Your task to perform on an android device: Go to calendar. Show me events next week Image 0: 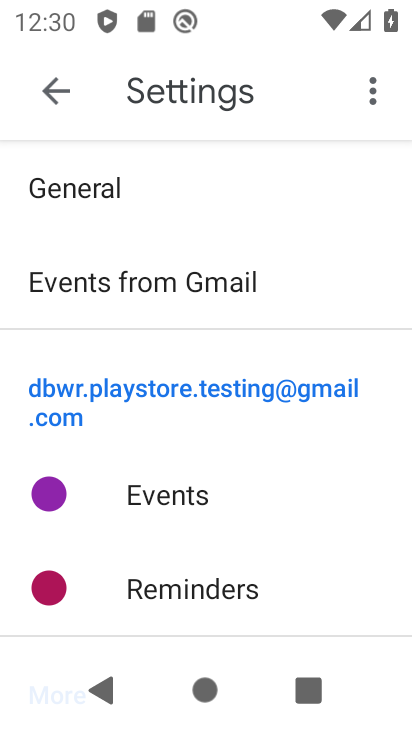
Step 0: press home button
Your task to perform on an android device: Go to calendar. Show me events next week Image 1: 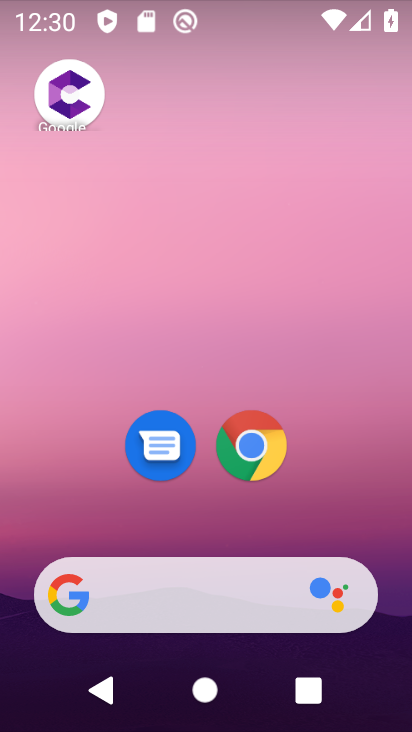
Step 1: drag from (372, 511) to (373, 102)
Your task to perform on an android device: Go to calendar. Show me events next week Image 2: 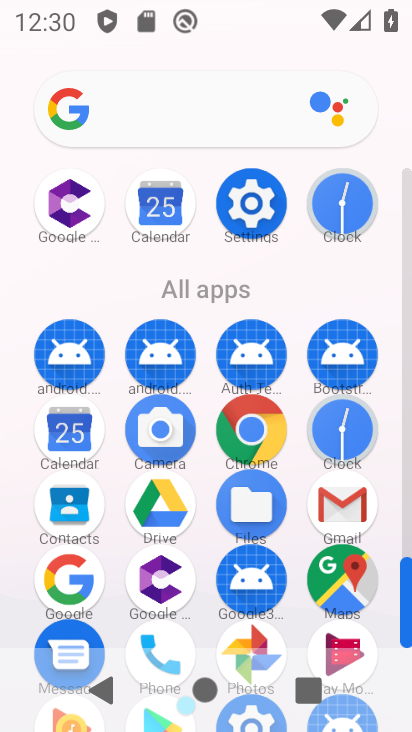
Step 2: click (270, 208)
Your task to perform on an android device: Go to calendar. Show me events next week Image 3: 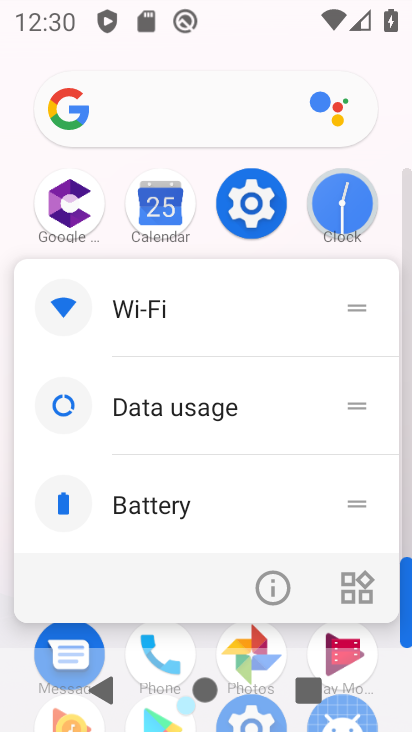
Step 3: click (231, 202)
Your task to perform on an android device: Go to calendar. Show me events next week Image 4: 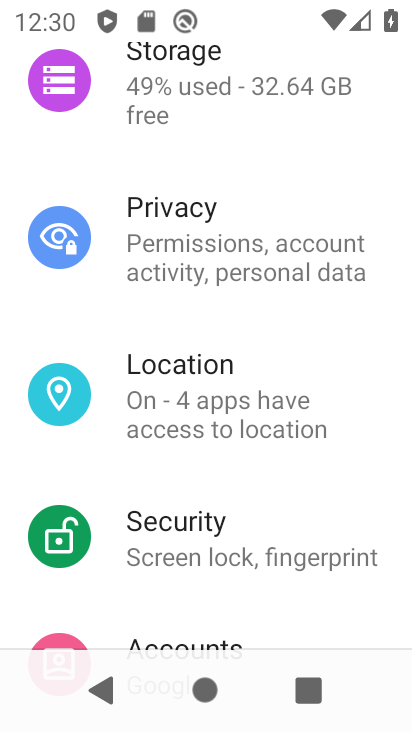
Step 4: drag from (378, 336) to (373, 479)
Your task to perform on an android device: Go to calendar. Show me events next week Image 5: 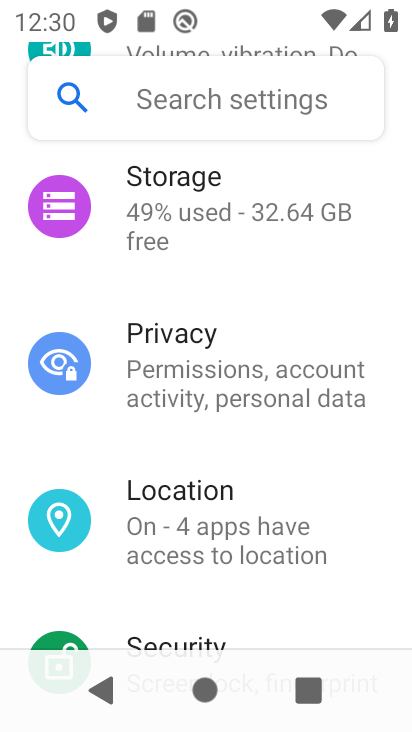
Step 5: drag from (387, 237) to (383, 410)
Your task to perform on an android device: Go to calendar. Show me events next week Image 6: 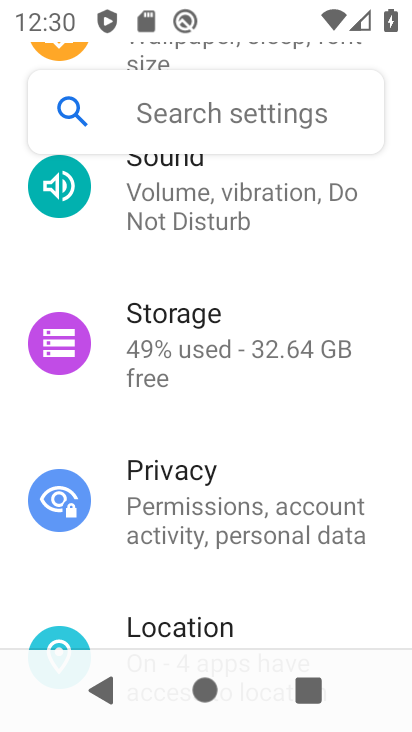
Step 6: drag from (386, 217) to (395, 411)
Your task to perform on an android device: Go to calendar. Show me events next week Image 7: 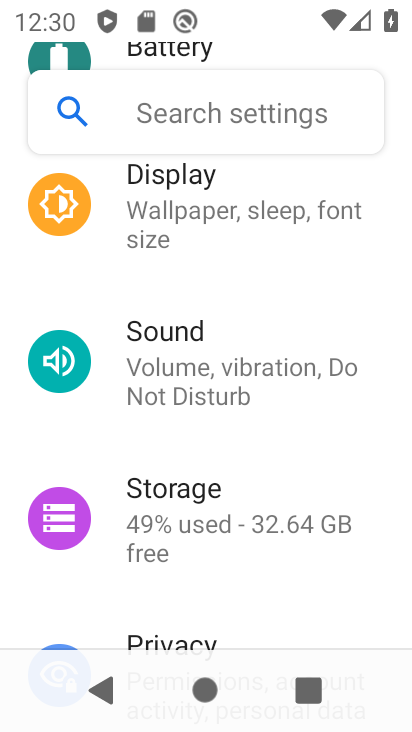
Step 7: drag from (385, 215) to (381, 409)
Your task to perform on an android device: Go to calendar. Show me events next week Image 8: 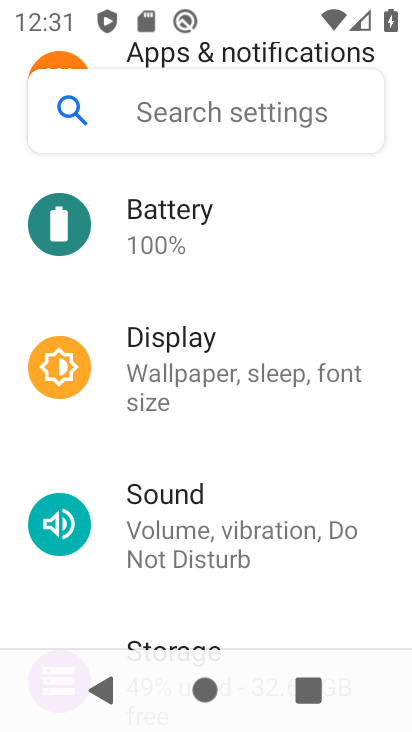
Step 8: press home button
Your task to perform on an android device: Go to calendar. Show me events next week Image 9: 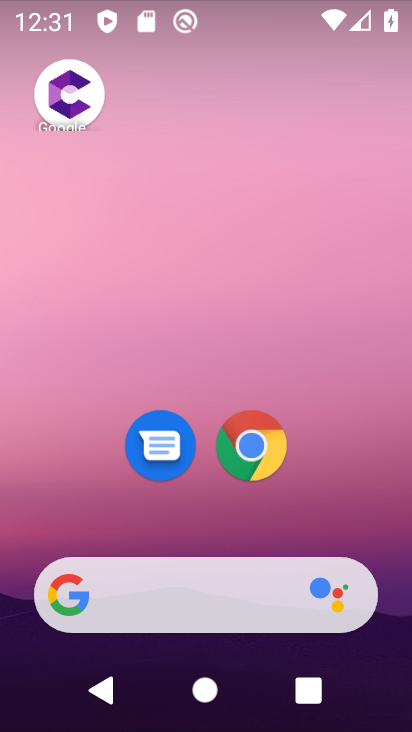
Step 9: drag from (371, 439) to (384, 53)
Your task to perform on an android device: Go to calendar. Show me events next week Image 10: 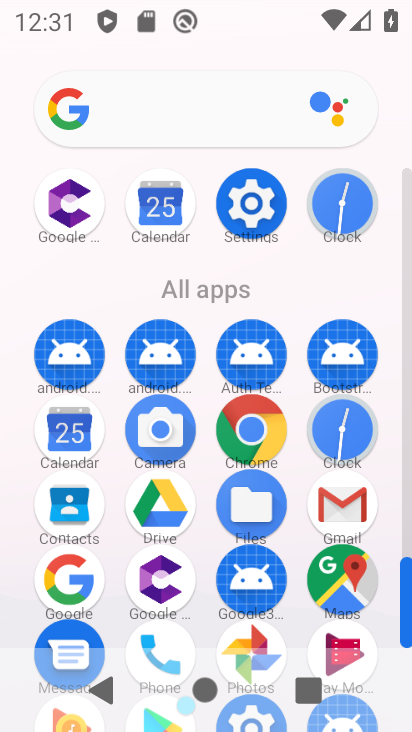
Step 10: click (65, 436)
Your task to perform on an android device: Go to calendar. Show me events next week Image 11: 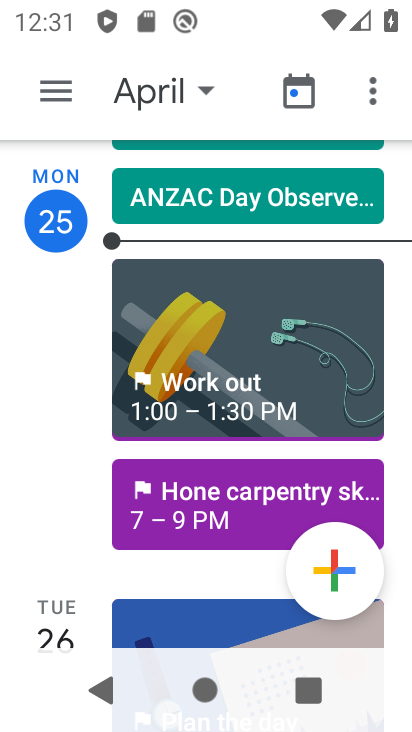
Step 11: click (206, 80)
Your task to perform on an android device: Go to calendar. Show me events next week Image 12: 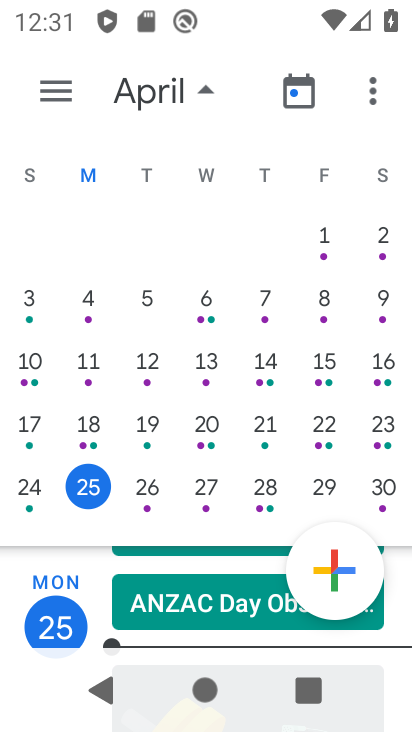
Step 12: drag from (107, 243) to (22, 236)
Your task to perform on an android device: Go to calendar. Show me events next week Image 13: 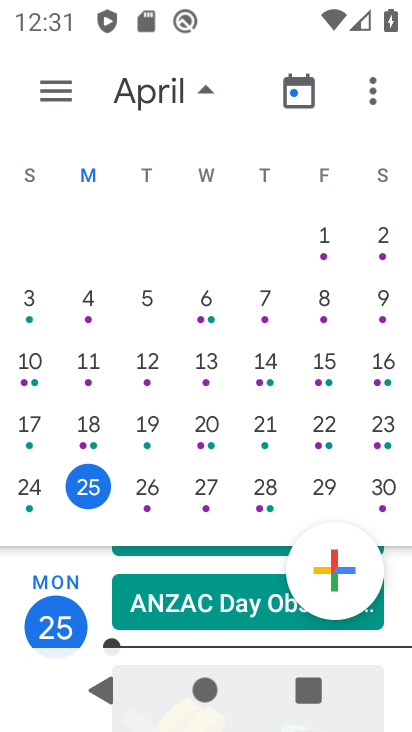
Step 13: drag from (351, 273) to (6, 283)
Your task to perform on an android device: Go to calendar. Show me events next week Image 14: 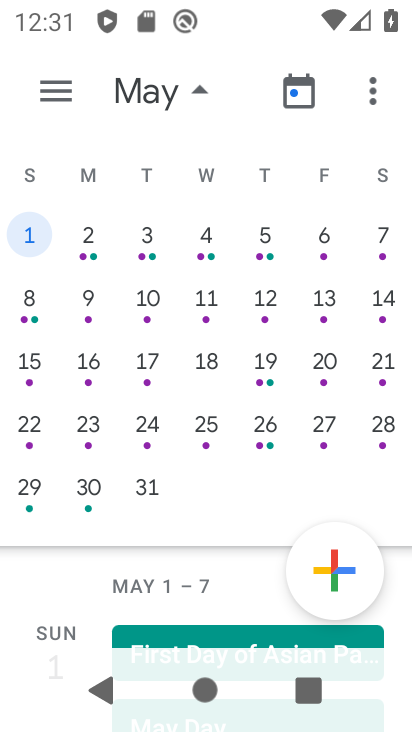
Step 14: click (86, 244)
Your task to perform on an android device: Go to calendar. Show me events next week Image 15: 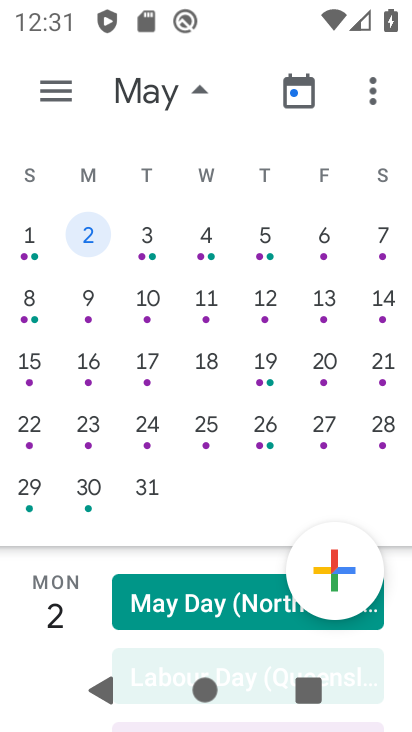
Step 15: click (88, 250)
Your task to perform on an android device: Go to calendar. Show me events next week Image 16: 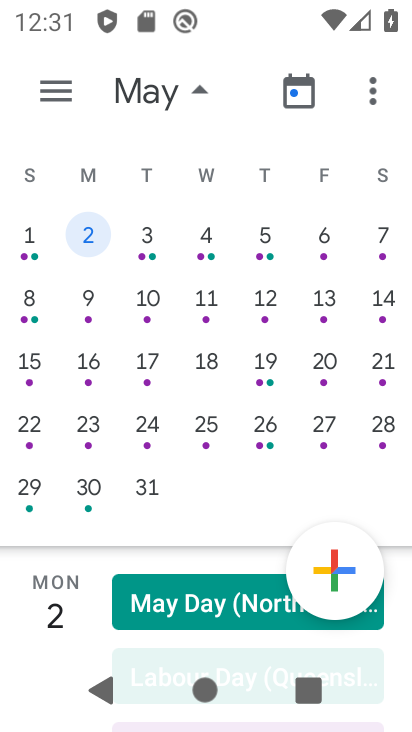
Step 16: task complete